Your task to perform on an android device: open app "Clock" (install if not already installed) Image 0: 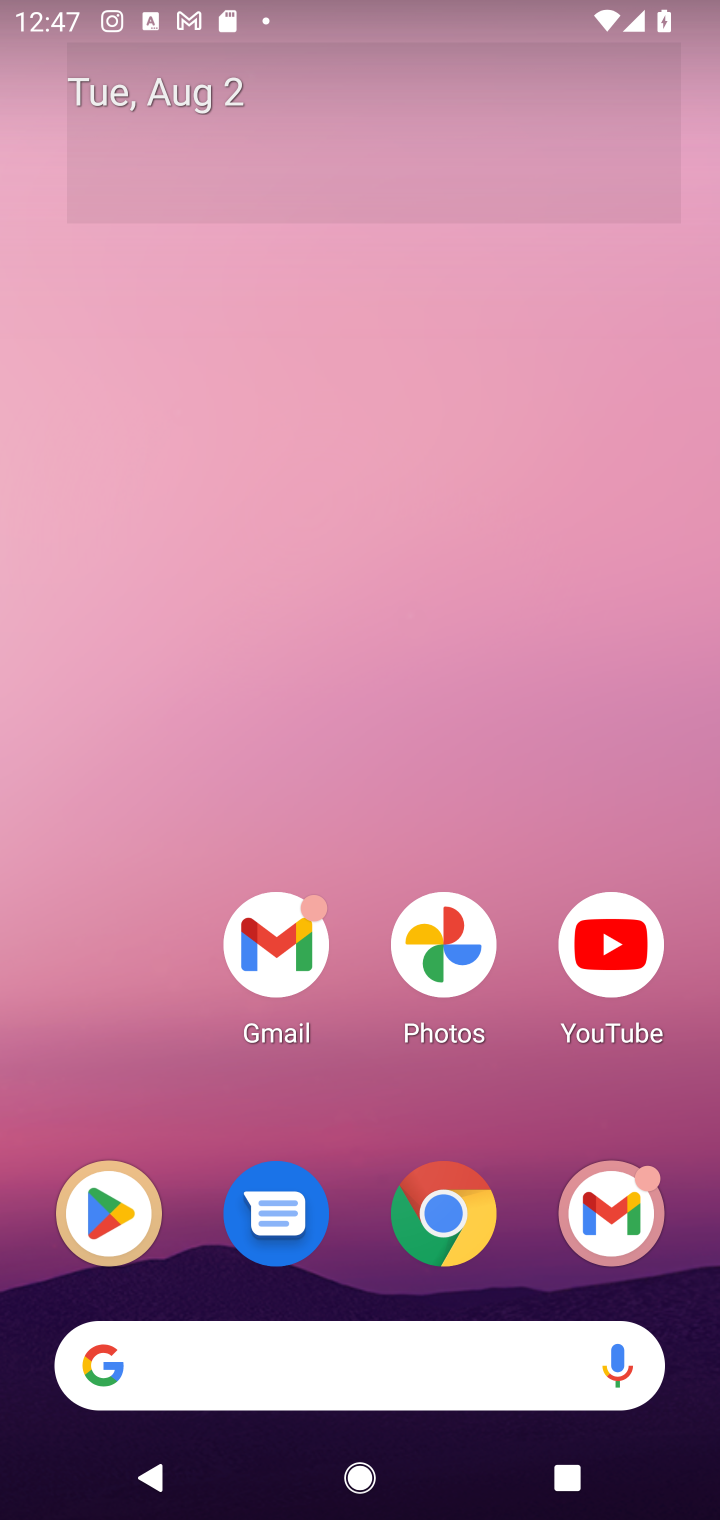
Step 0: click (120, 1224)
Your task to perform on an android device: open app "Clock" (install if not already installed) Image 1: 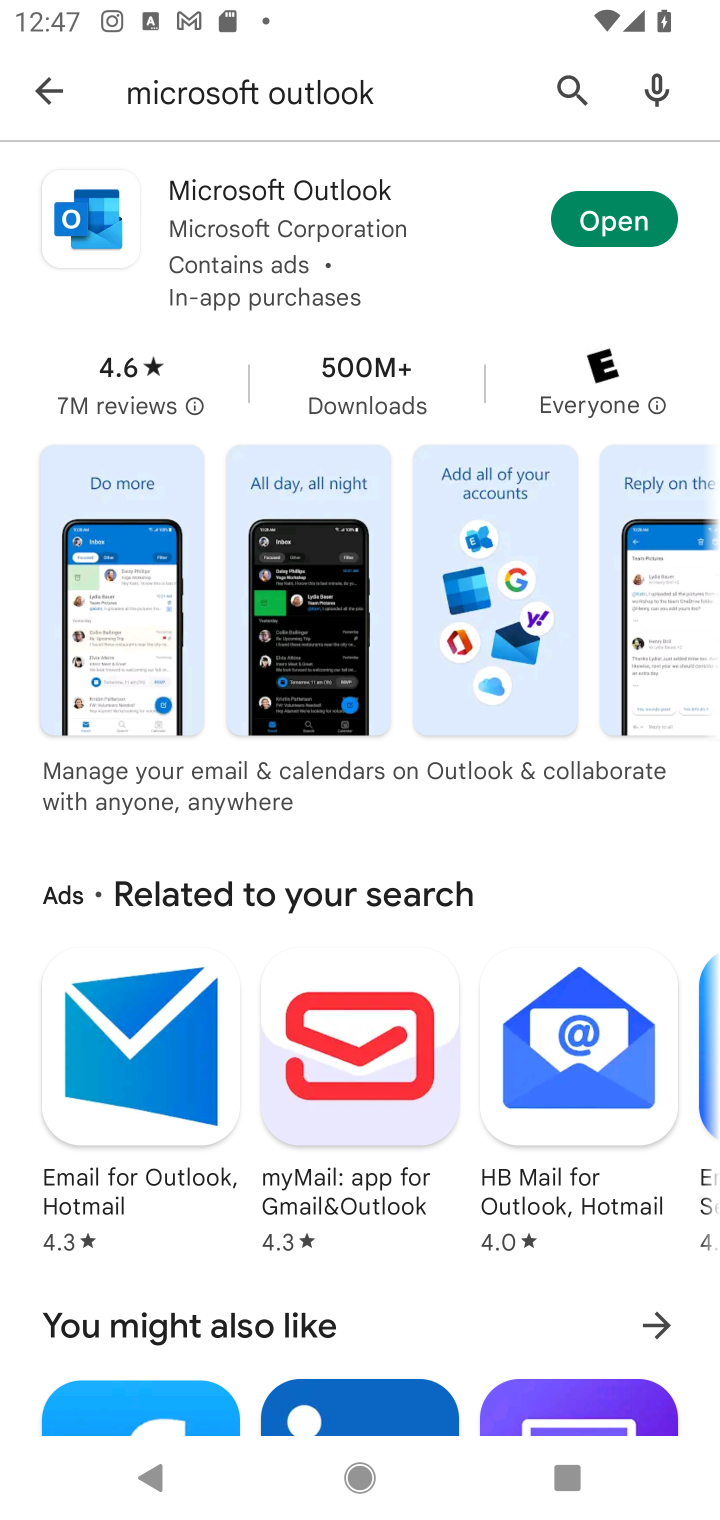
Step 1: click (50, 112)
Your task to perform on an android device: open app "Clock" (install if not already installed) Image 2: 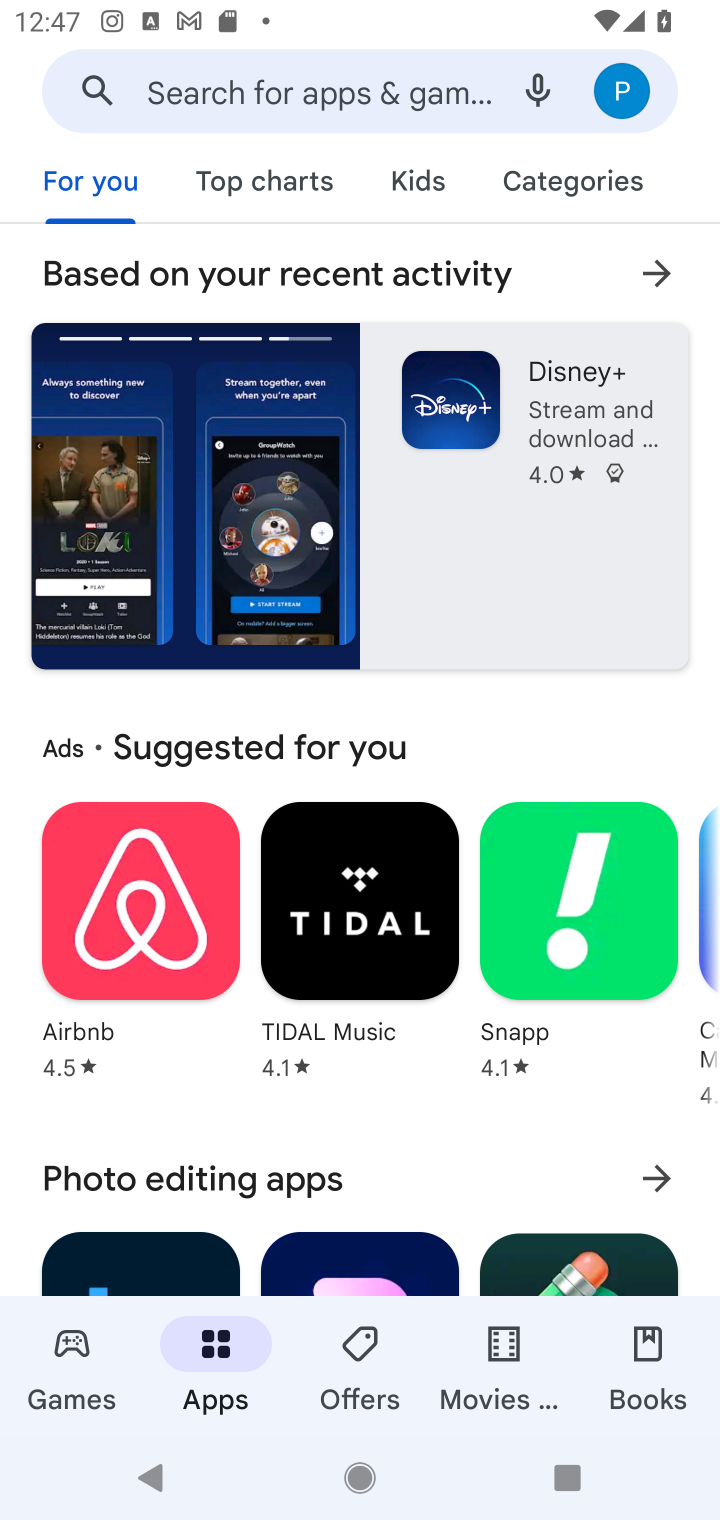
Step 2: click (248, 102)
Your task to perform on an android device: open app "Clock" (install if not already installed) Image 3: 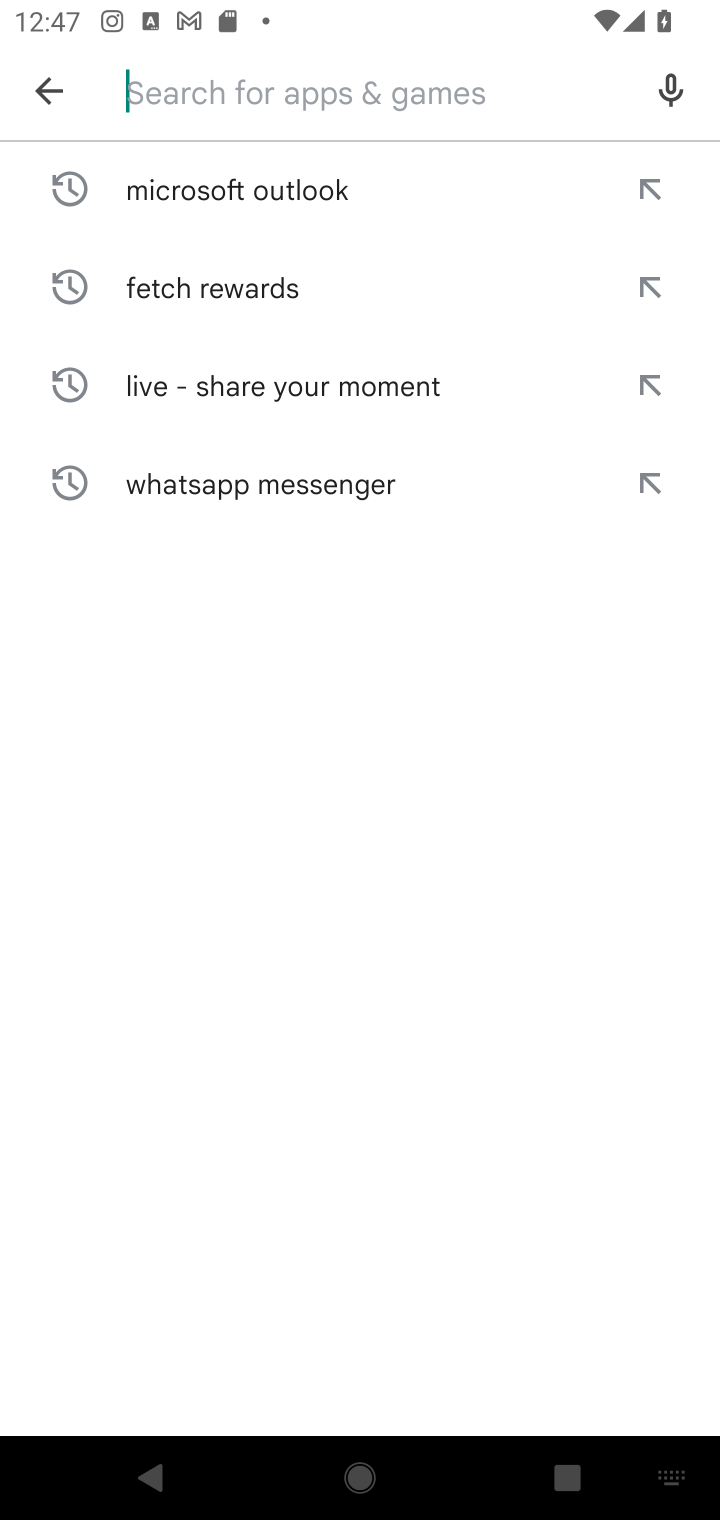
Step 3: type "Clock"
Your task to perform on an android device: open app "Clock" (install if not already installed) Image 4: 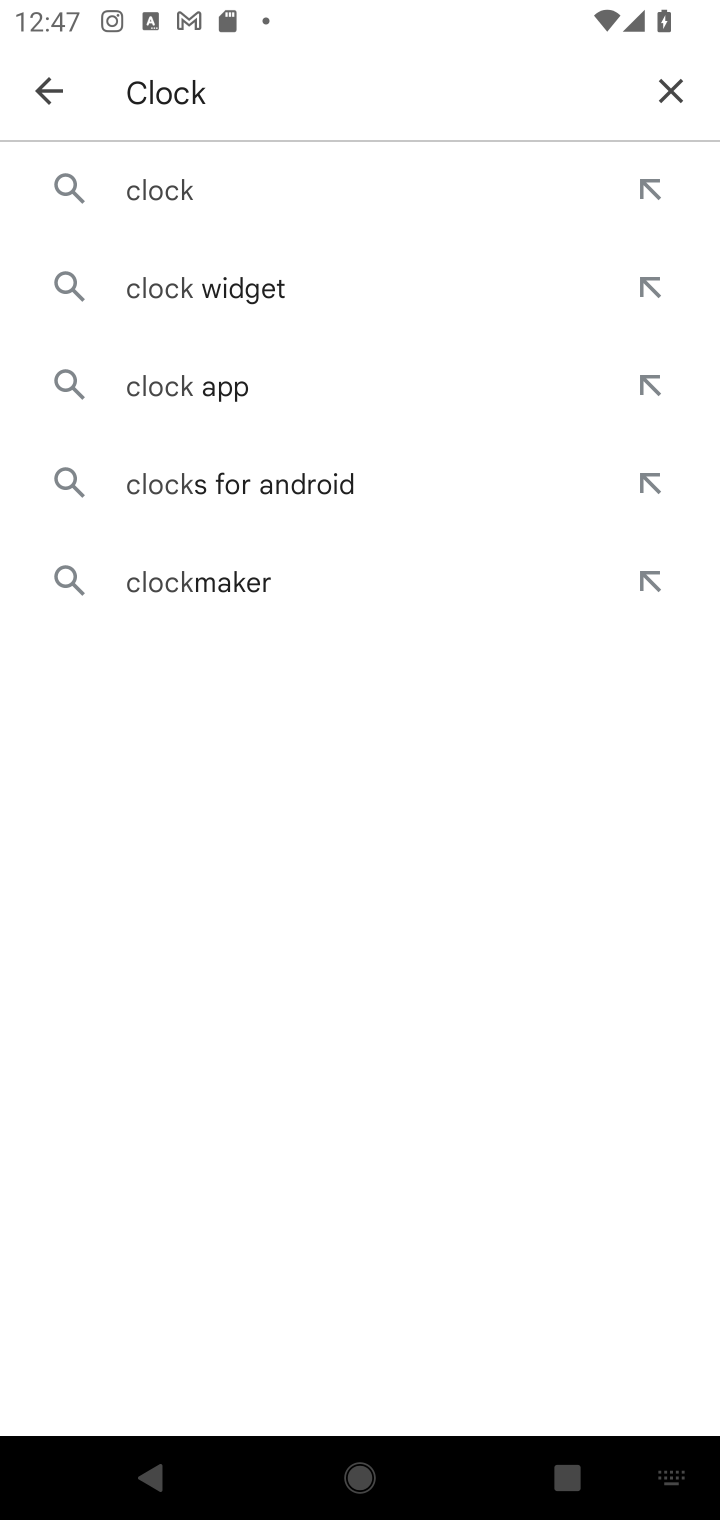
Step 4: click (163, 172)
Your task to perform on an android device: open app "Clock" (install if not already installed) Image 5: 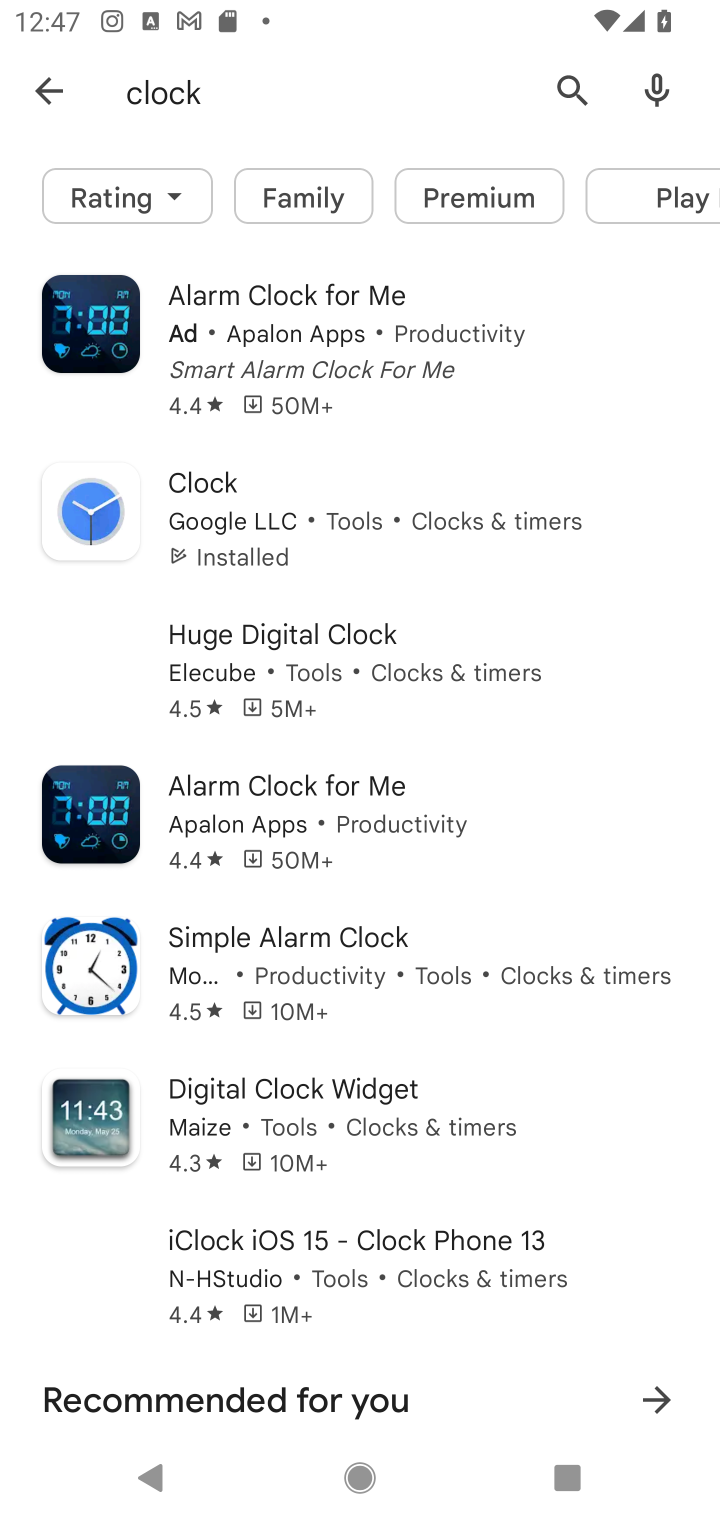
Step 5: click (253, 539)
Your task to perform on an android device: open app "Clock" (install if not already installed) Image 6: 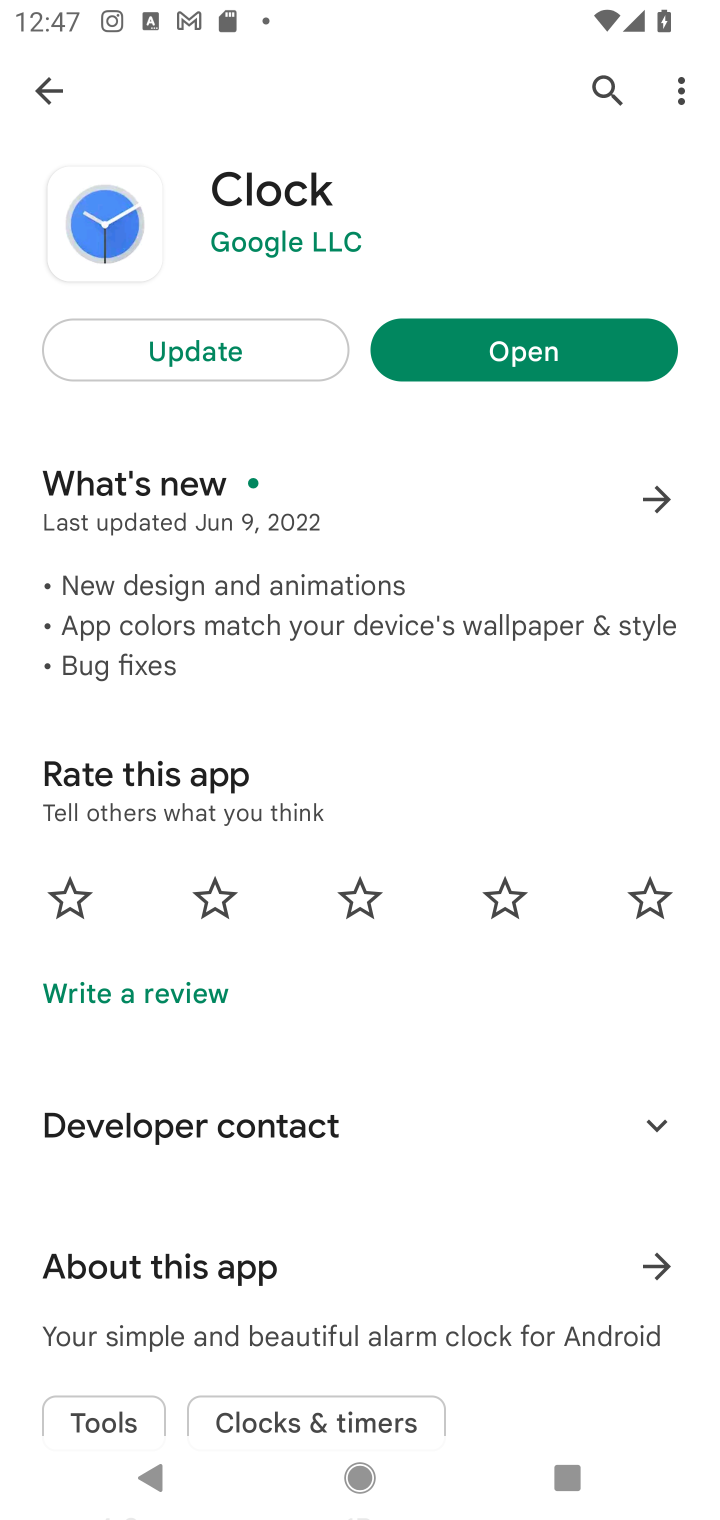
Step 6: click (435, 350)
Your task to perform on an android device: open app "Clock" (install if not already installed) Image 7: 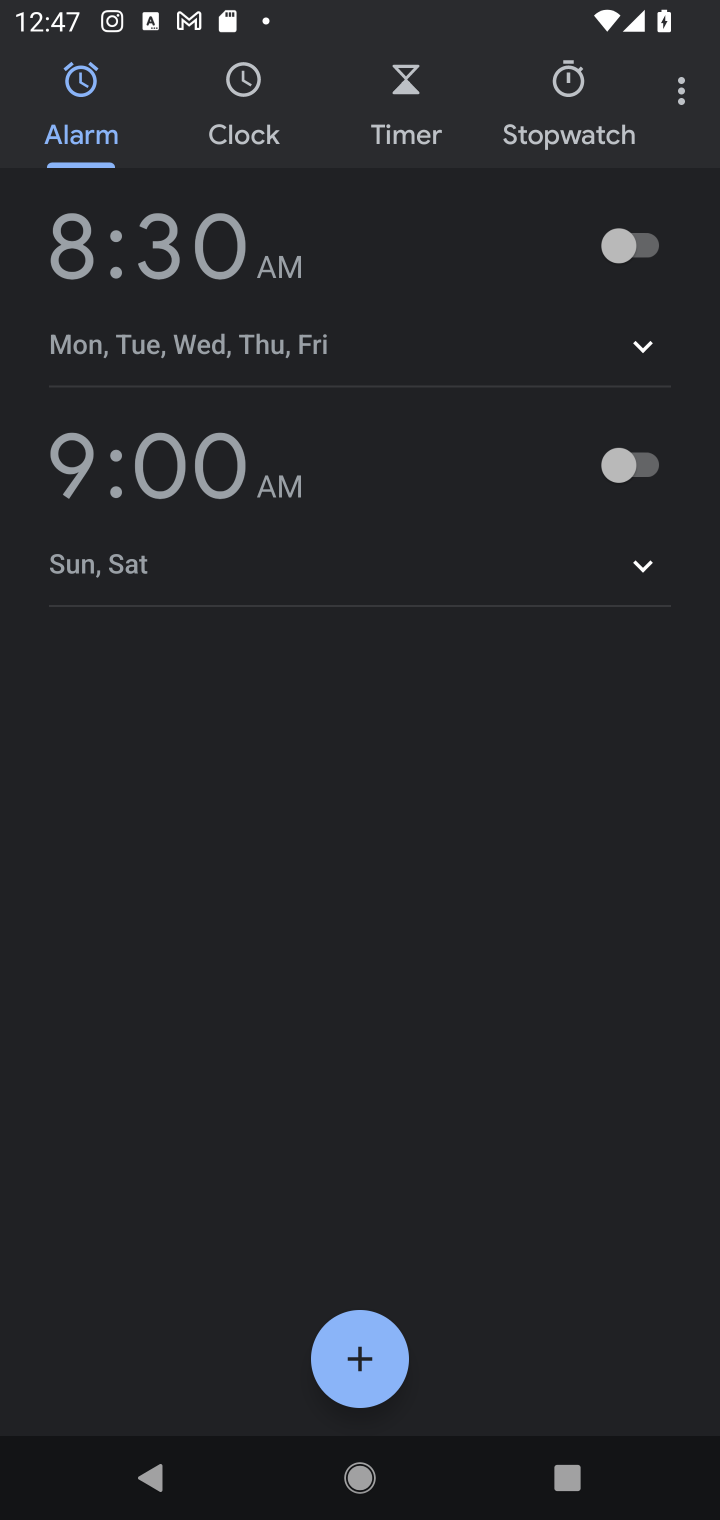
Step 7: task complete